Your task to perform on an android device: change alarm snooze length Image 0: 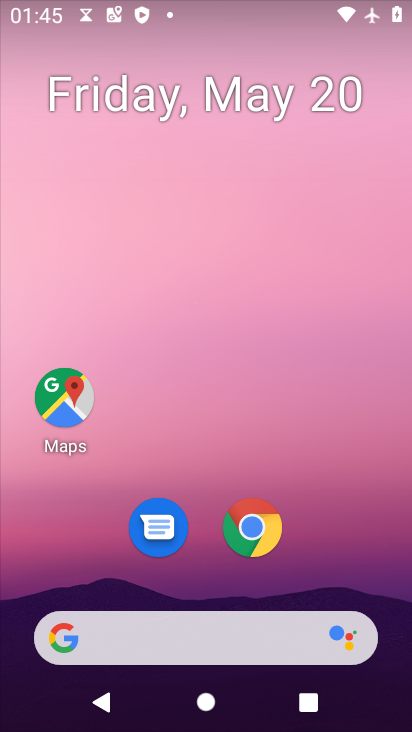
Step 0: press home button
Your task to perform on an android device: change alarm snooze length Image 1: 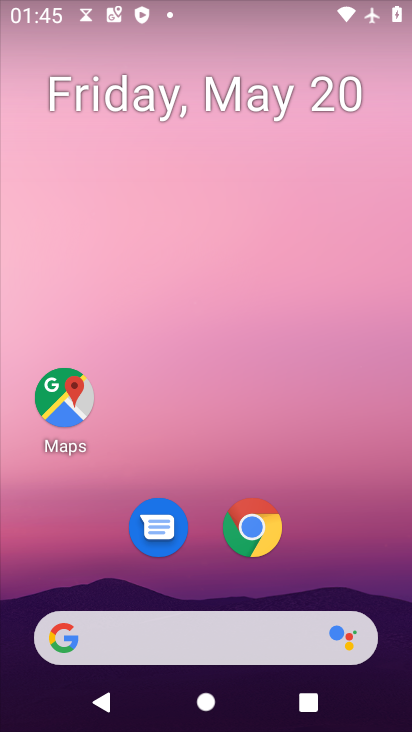
Step 1: drag from (181, 640) to (282, 82)
Your task to perform on an android device: change alarm snooze length Image 2: 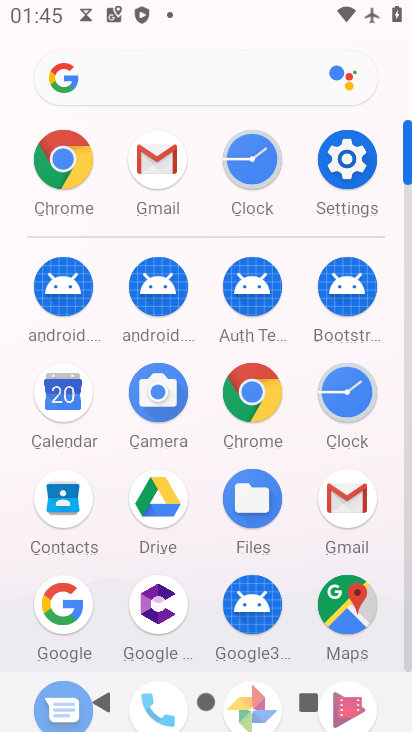
Step 2: click (262, 162)
Your task to perform on an android device: change alarm snooze length Image 3: 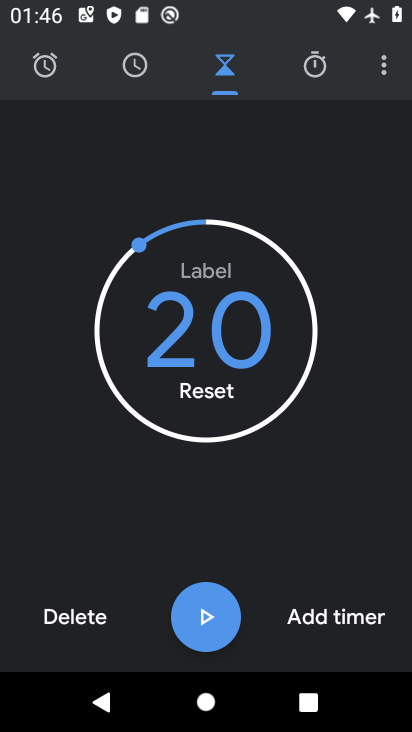
Step 3: click (385, 65)
Your task to perform on an android device: change alarm snooze length Image 4: 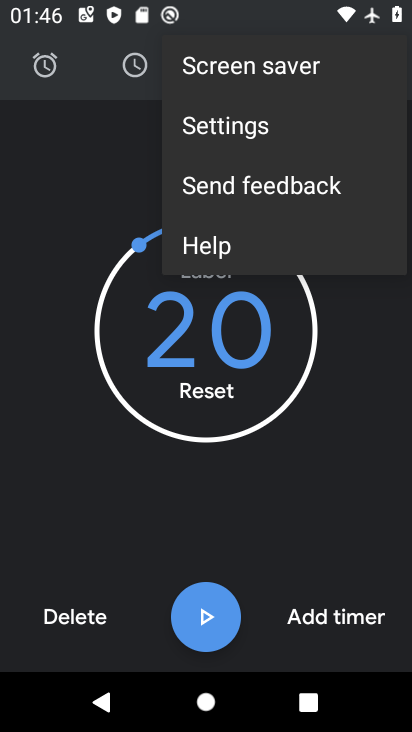
Step 4: click (281, 119)
Your task to perform on an android device: change alarm snooze length Image 5: 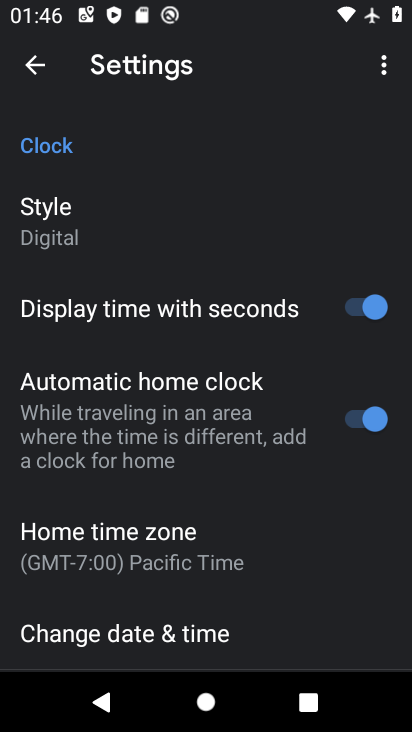
Step 5: drag from (254, 578) to (353, 222)
Your task to perform on an android device: change alarm snooze length Image 6: 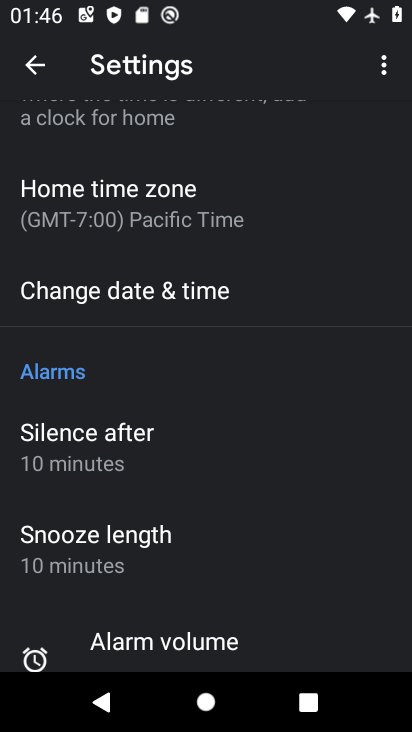
Step 6: click (112, 541)
Your task to perform on an android device: change alarm snooze length Image 7: 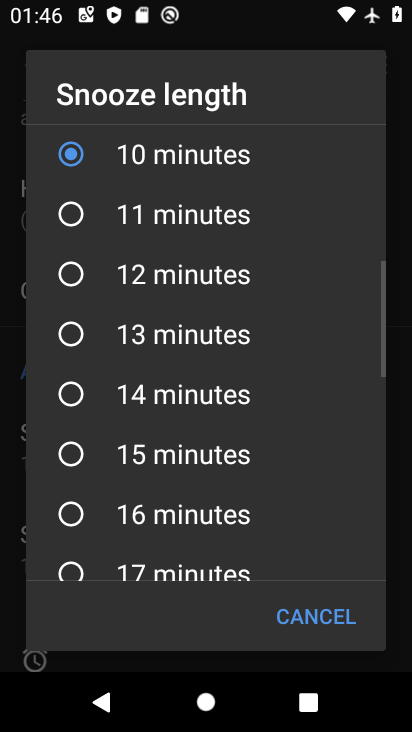
Step 7: click (79, 462)
Your task to perform on an android device: change alarm snooze length Image 8: 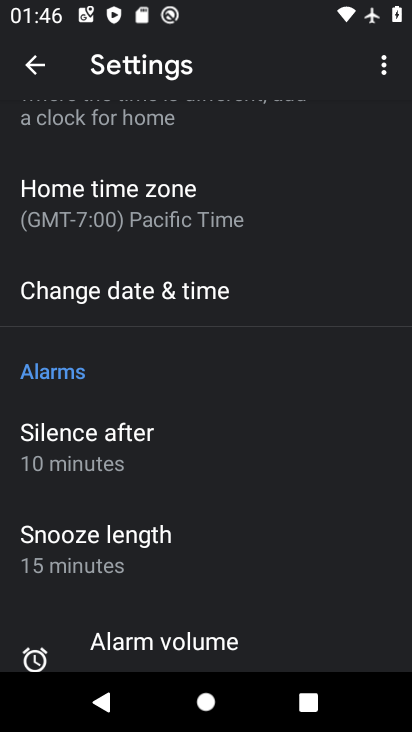
Step 8: task complete